Your task to perform on an android device: Go to eBay Image 0: 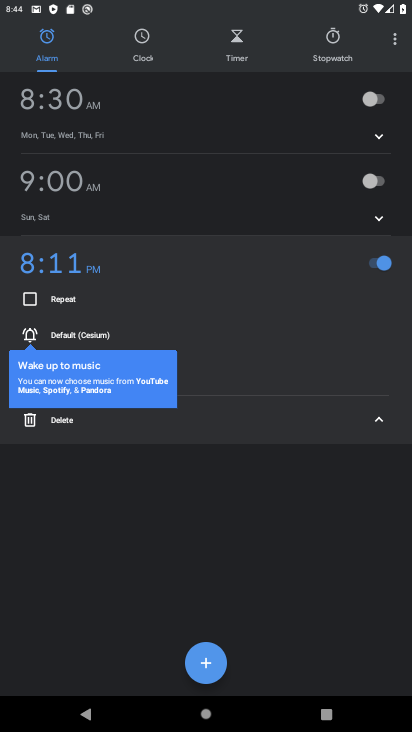
Step 0: press home button
Your task to perform on an android device: Go to eBay Image 1: 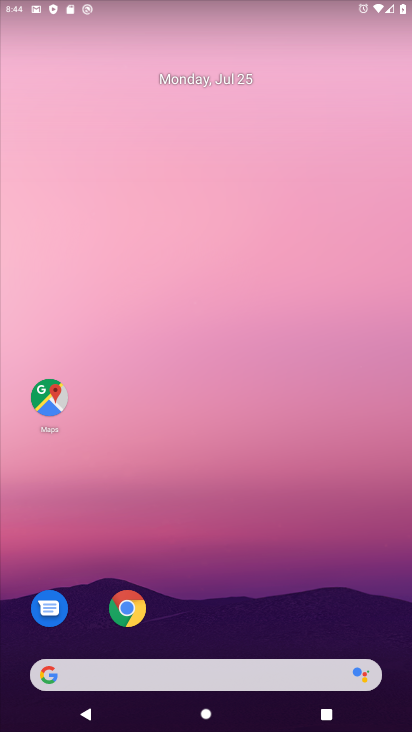
Step 1: click (222, 688)
Your task to perform on an android device: Go to eBay Image 2: 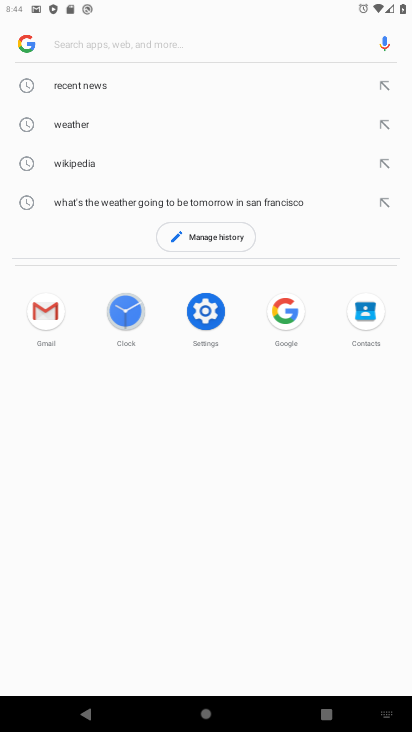
Step 2: type "ebay"
Your task to perform on an android device: Go to eBay Image 3: 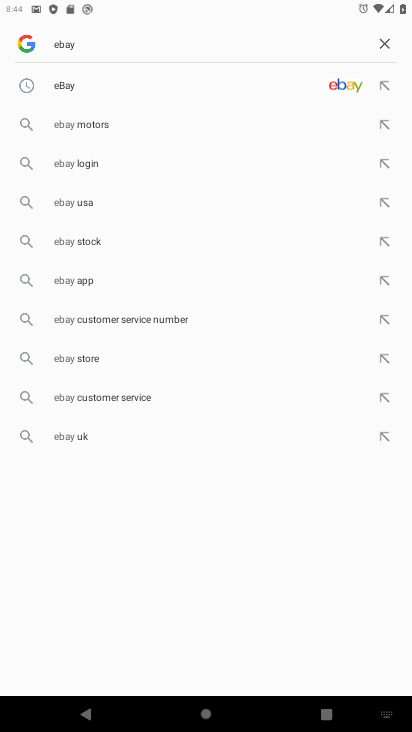
Step 3: click (339, 89)
Your task to perform on an android device: Go to eBay Image 4: 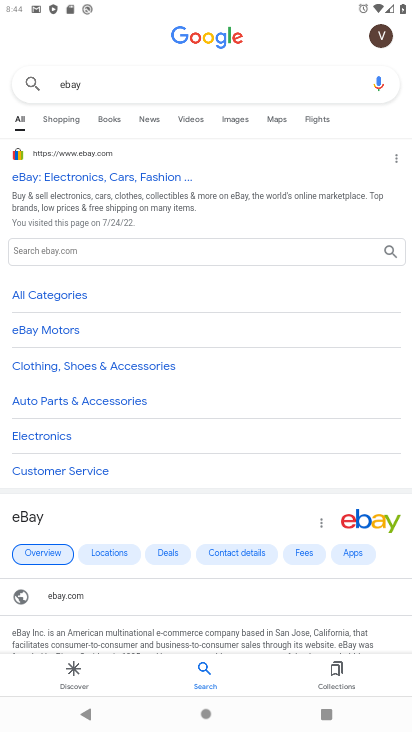
Step 4: click (94, 175)
Your task to perform on an android device: Go to eBay Image 5: 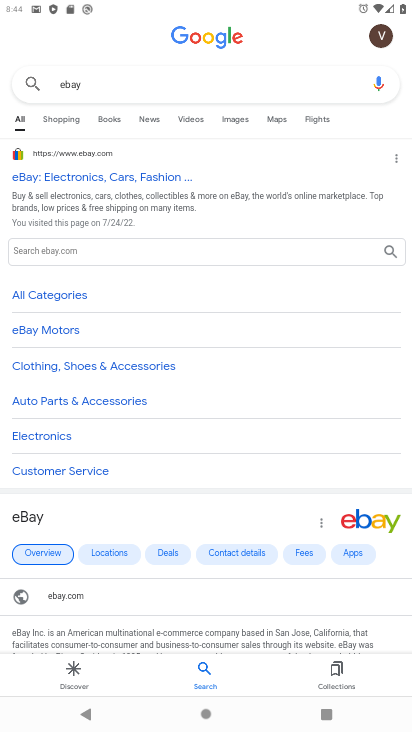
Step 5: click (136, 177)
Your task to perform on an android device: Go to eBay Image 6: 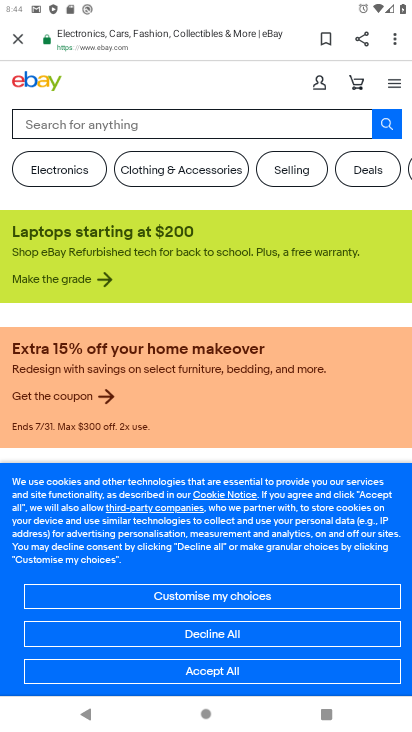
Step 6: task complete